Your task to perform on an android device: find photos in the google photos app Image 0: 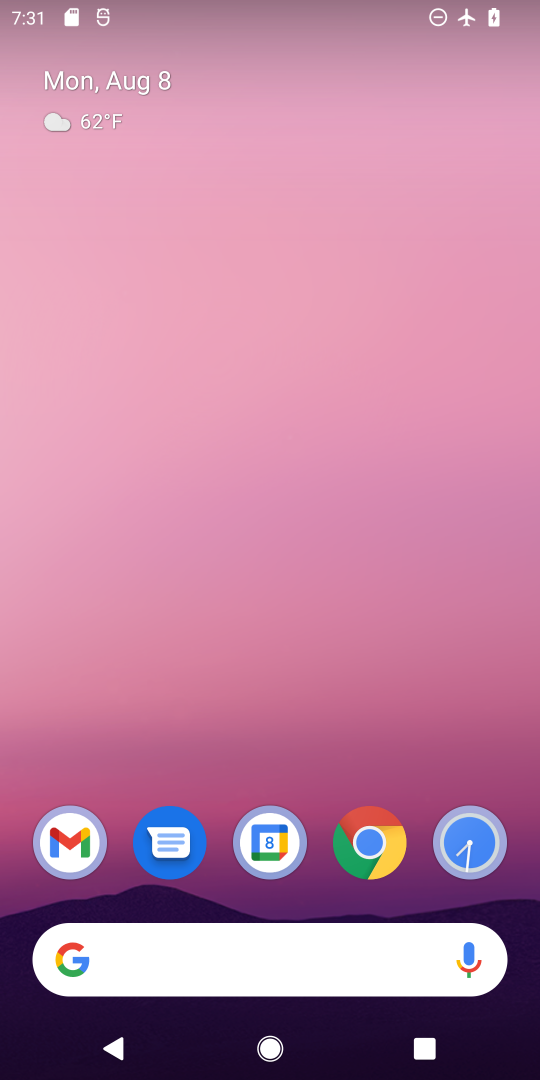
Step 0: drag from (304, 905) to (408, 3)
Your task to perform on an android device: find photos in the google photos app Image 1: 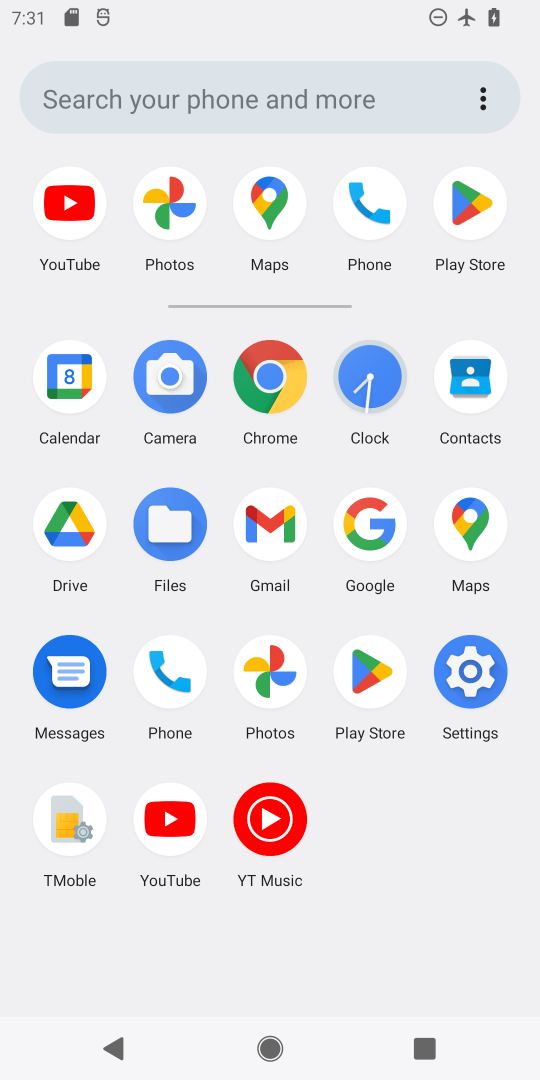
Step 1: click (279, 667)
Your task to perform on an android device: find photos in the google photos app Image 2: 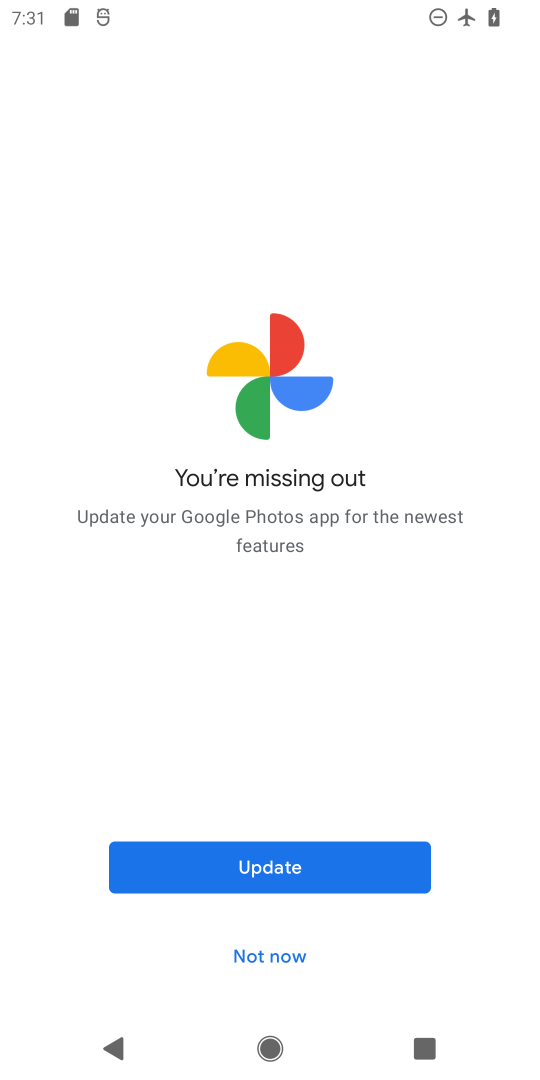
Step 2: click (288, 956)
Your task to perform on an android device: find photos in the google photos app Image 3: 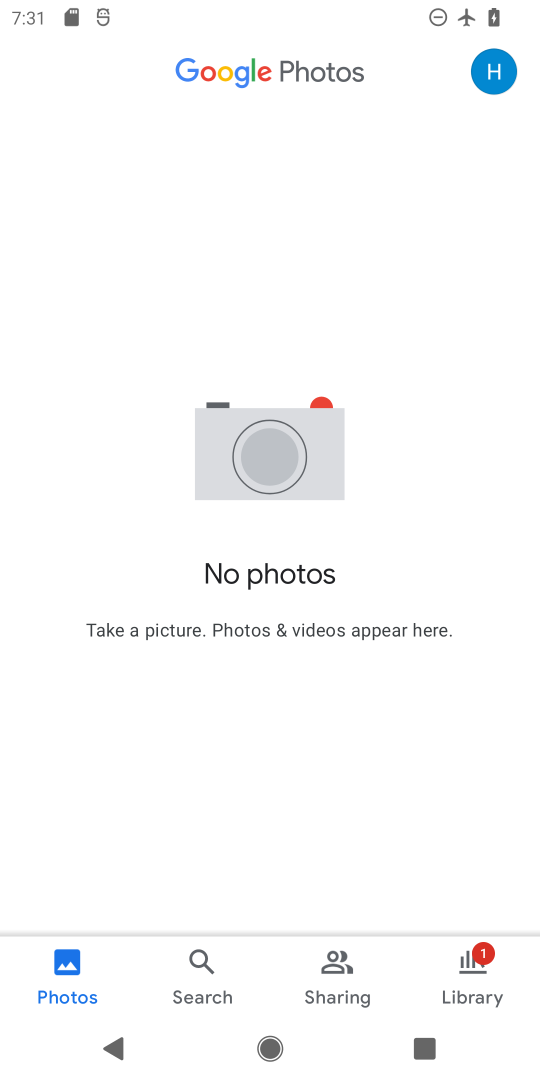
Step 3: task complete